Your task to perform on an android device: clear history in the chrome app Image 0: 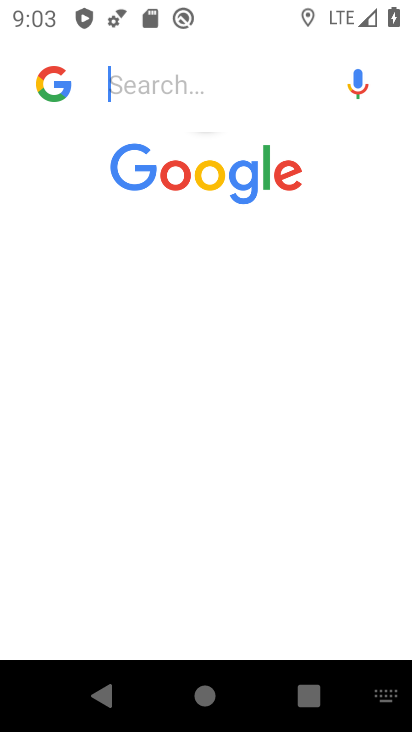
Step 0: press back button
Your task to perform on an android device: clear history in the chrome app Image 1: 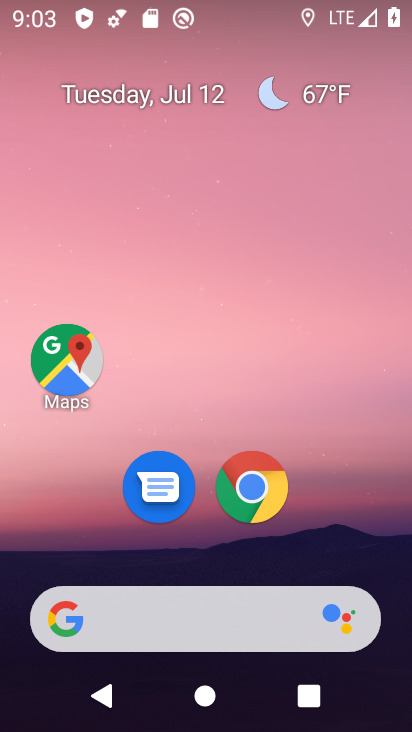
Step 1: click (275, 99)
Your task to perform on an android device: clear history in the chrome app Image 2: 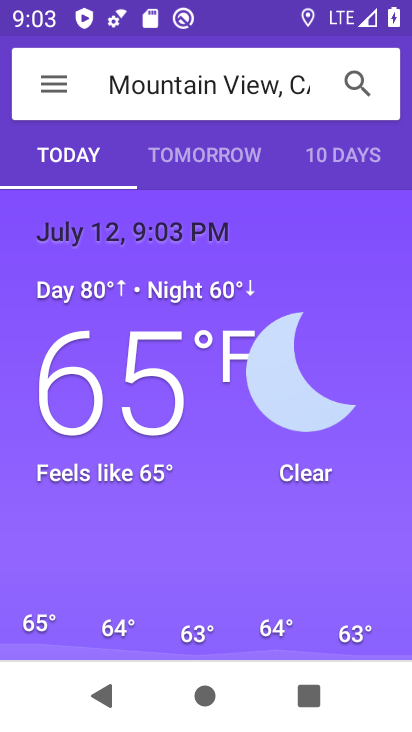
Step 2: press home button
Your task to perform on an android device: clear history in the chrome app Image 3: 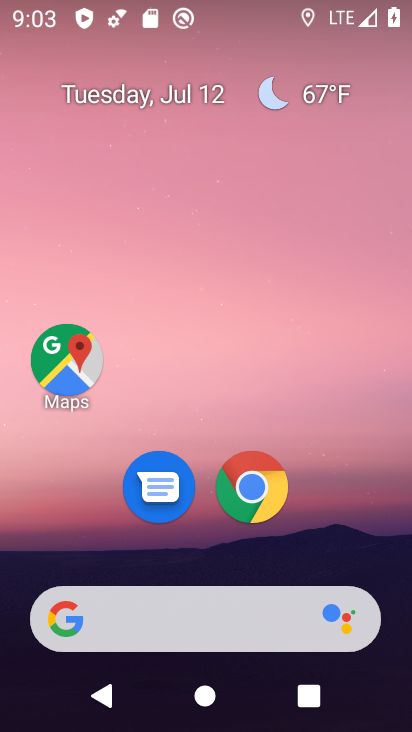
Step 3: click (259, 491)
Your task to perform on an android device: clear history in the chrome app Image 4: 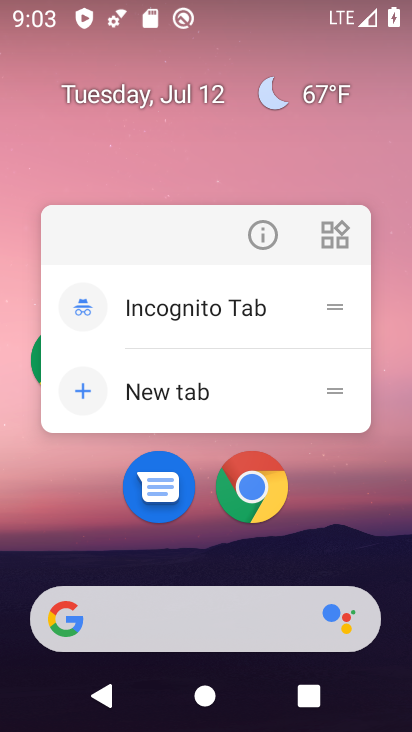
Step 4: click (237, 482)
Your task to perform on an android device: clear history in the chrome app Image 5: 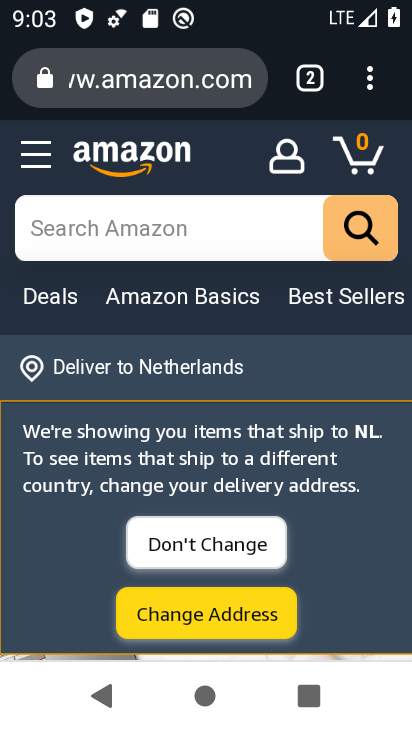
Step 5: drag from (370, 66) to (86, 431)
Your task to perform on an android device: clear history in the chrome app Image 6: 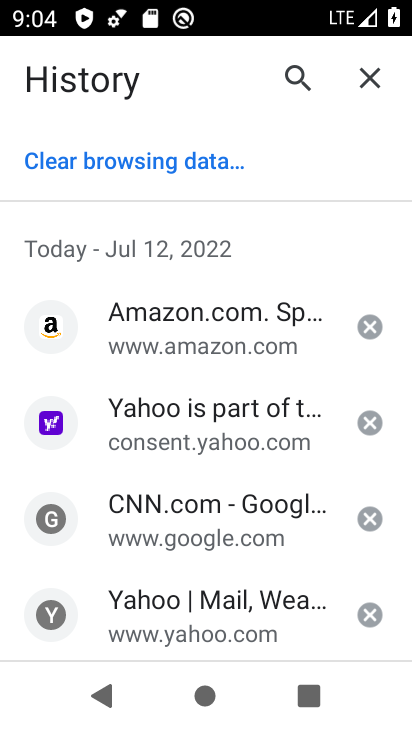
Step 6: click (131, 167)
Your task to perform on an android device: clear history in the chrome app Image 7: 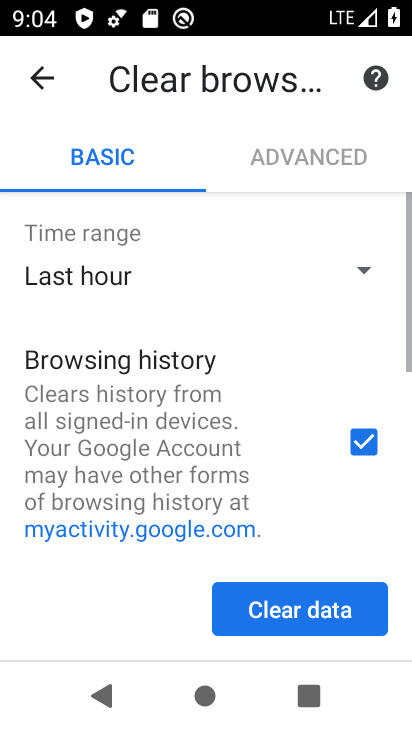
Step 7: drag from (231, 526) to (344, 54)
Your task to perform on an android device: clear history in the chrome app Image 8: 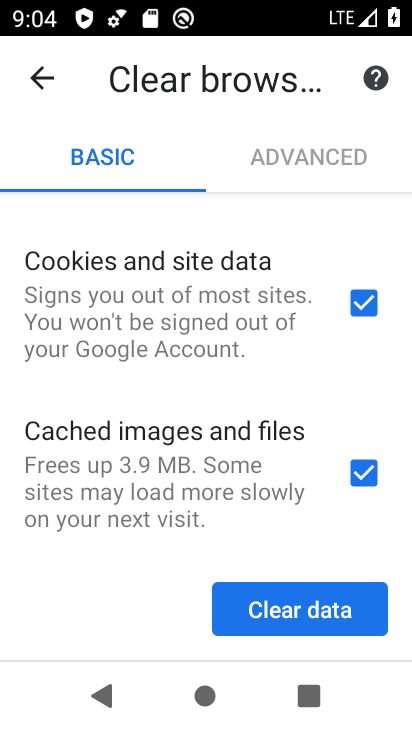
Step 8: click (259, 617)
Your task to perform on an android device: clear history in the chrome app Image 9: 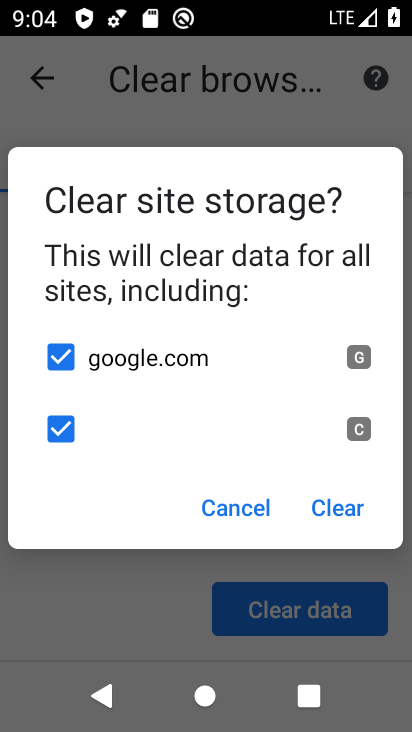
Step 9: click (314, 517)
Your task to perform on an android device: clear history in the chrome app Image 10: 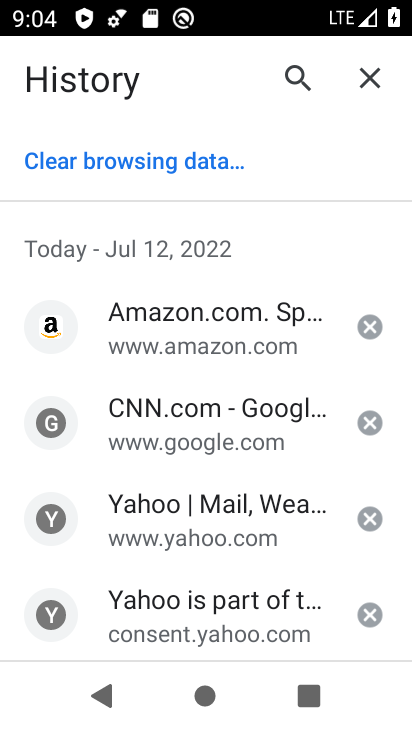
Step 10: task complete